Your task to perform on an android device: check google app version Image 0: 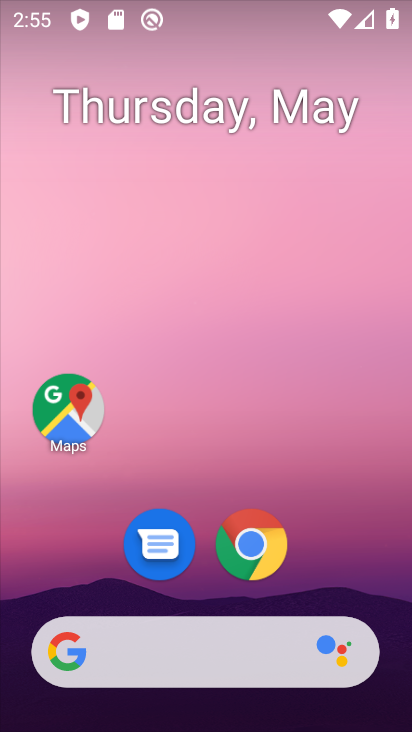
Step 0: drag from (151, 609) to (259, 68)
Your task to perform on an android device: check google app version Image 1: 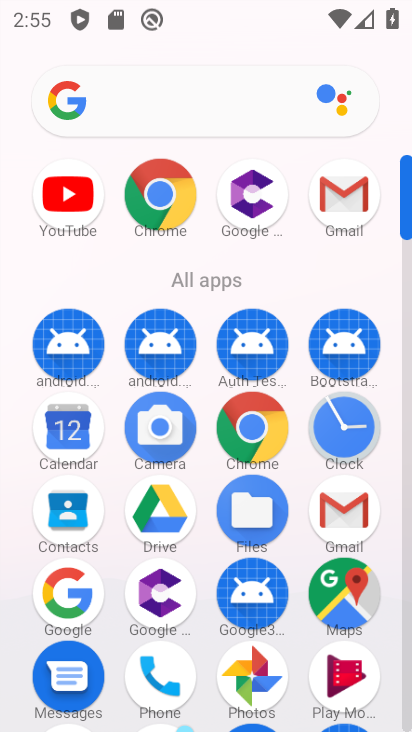
Step 1: drag from (170, 614) to (224, 415)
Your task to perform on an android device: check google app version Image 2: 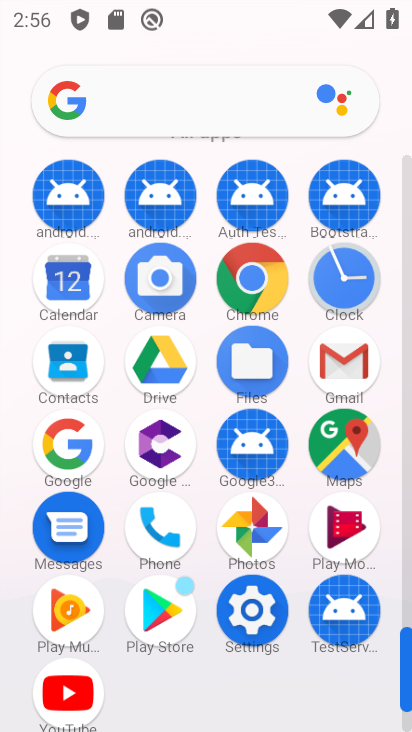
Step 2: click (255, 620)
Your task to perform on an android device: check google app version Image 3: 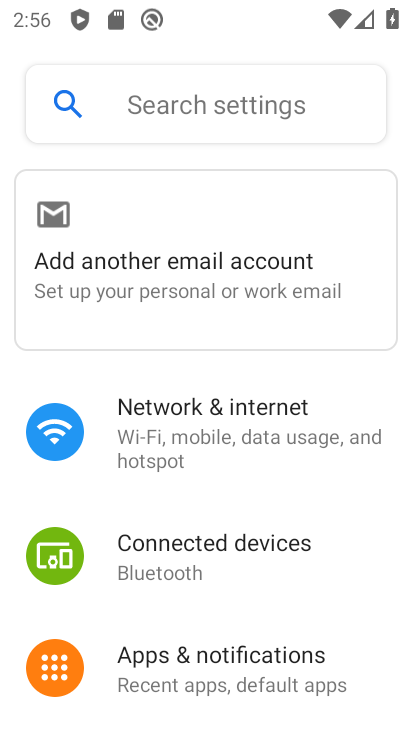
Step 3: drag from (199, 669) to (299, 265)
Your task to perform on an android device: check google app version Image 4: 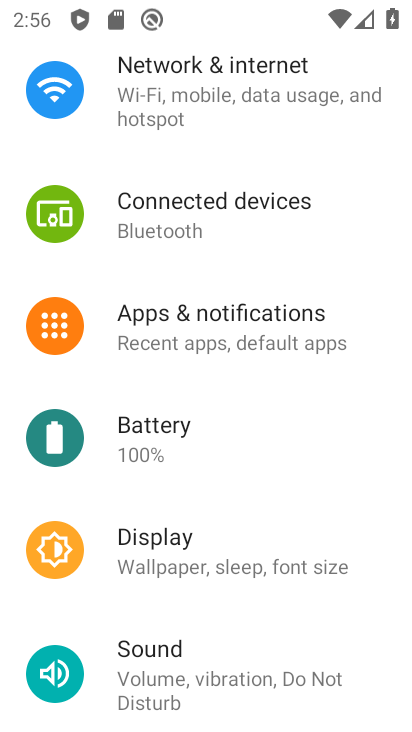
Step 4: drag from (203, 668) to (264, 569)
Your task to perform on an android device: check google app version Image 5: 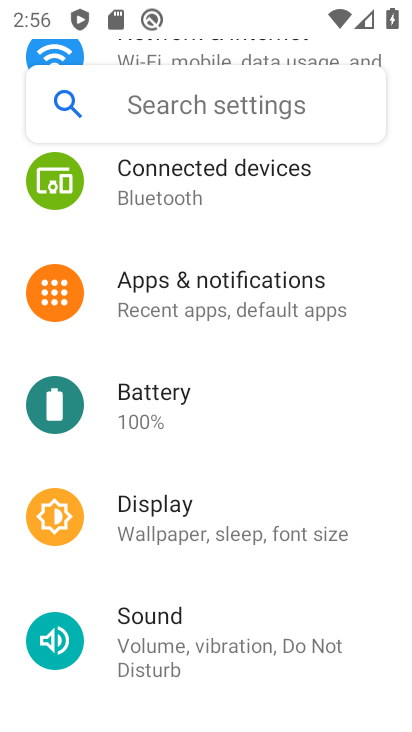
Step 5: click (265, 309)
Your task to perform on an android device: check google app version Image 6: 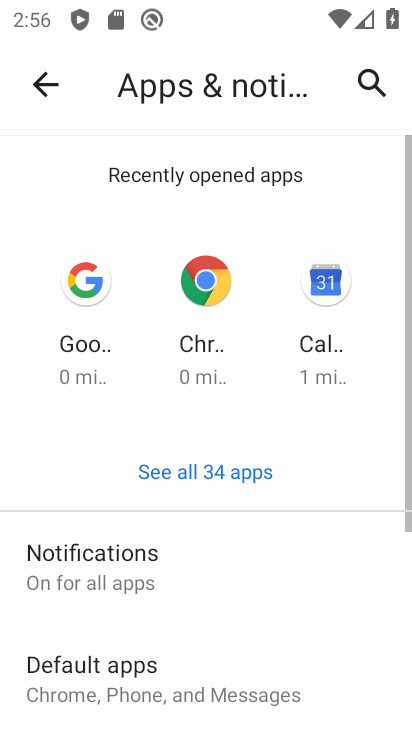
Step 6: click (221, 471)
Your task to perform on an android device: check google app version Image 7: 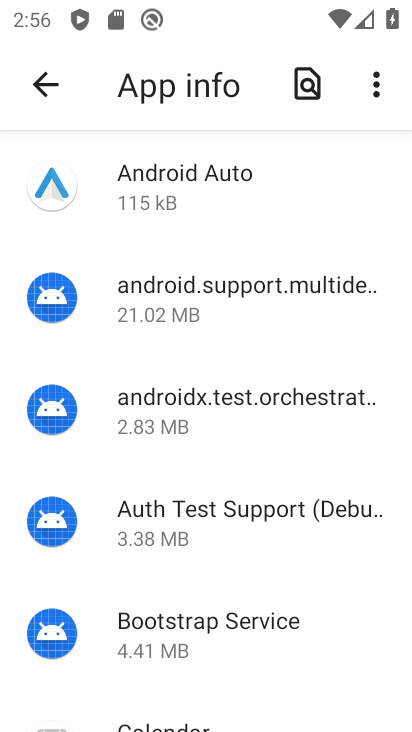
Step 7: drag from (225, 648) to (384, 100)
Your task to perform on an android device: check google app version Image 8: 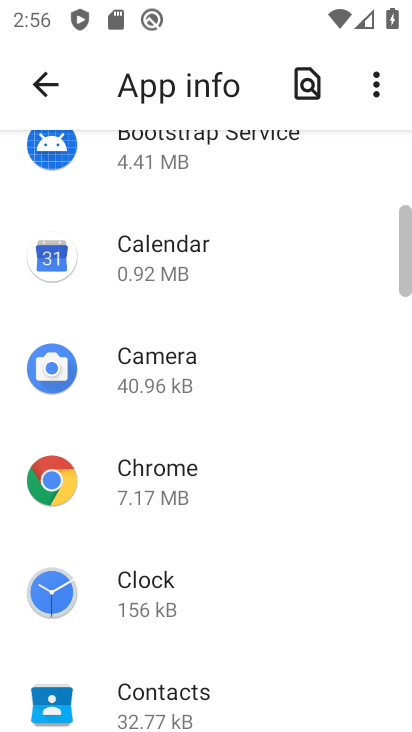
Step 8: drag from (203, 637) to (330, 163)
Your task to perform on an android device: check google app version Image 9: 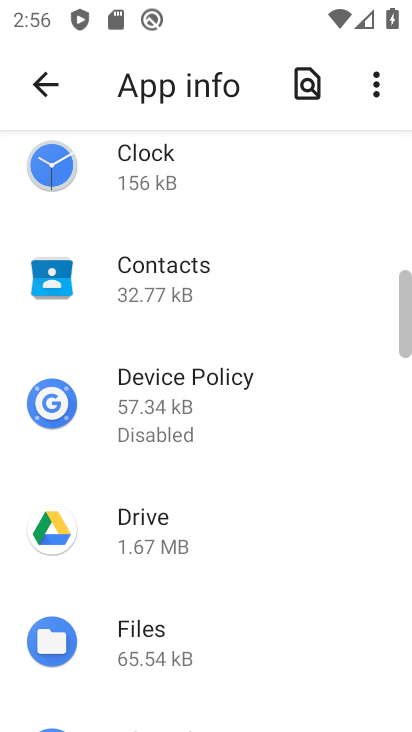
Step 9: drag from (187, 668) to (307, 117)
Your task to perform on an android device: check google app version Image 10: 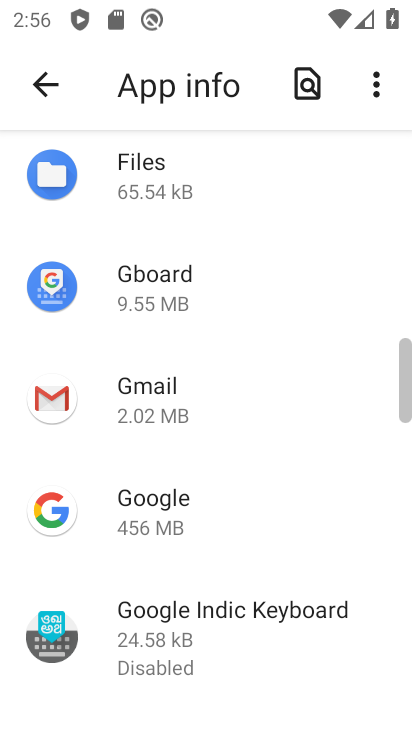
Step 10: click (212, 542)
Your task to perform on an android device: check google app version Image 11: 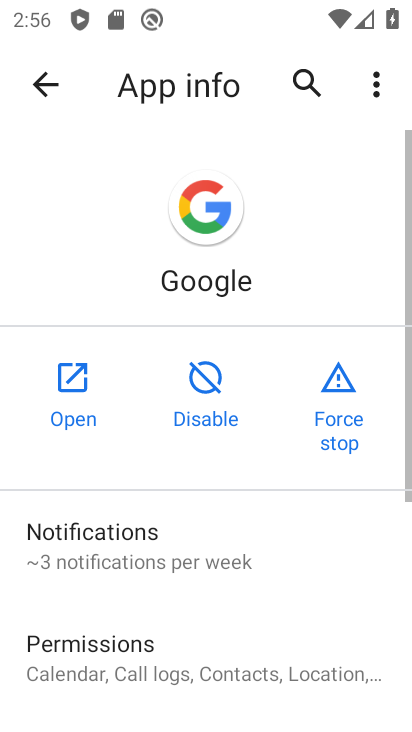
Step 11: drag from (213, 516) to (325, 138)
Your task to perform on an android device: check google app version Image 12: 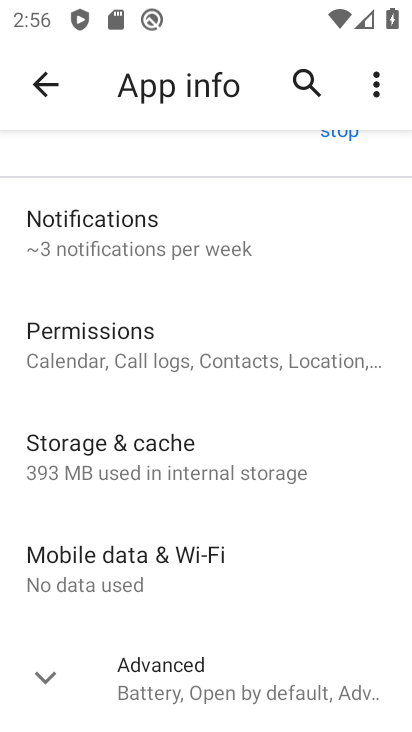
Step 12: click (215, 681)
Your task to perform on an android device: check google app version Image 13: 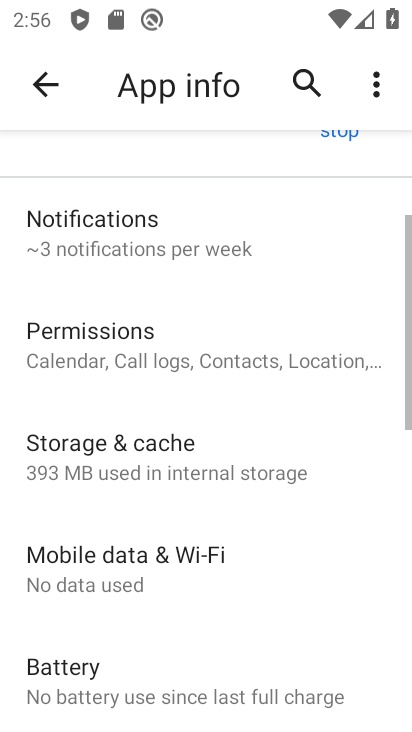
Step 13: task complete